Your task to perform on an android device: move a message to another label in the gmail app Image 0: 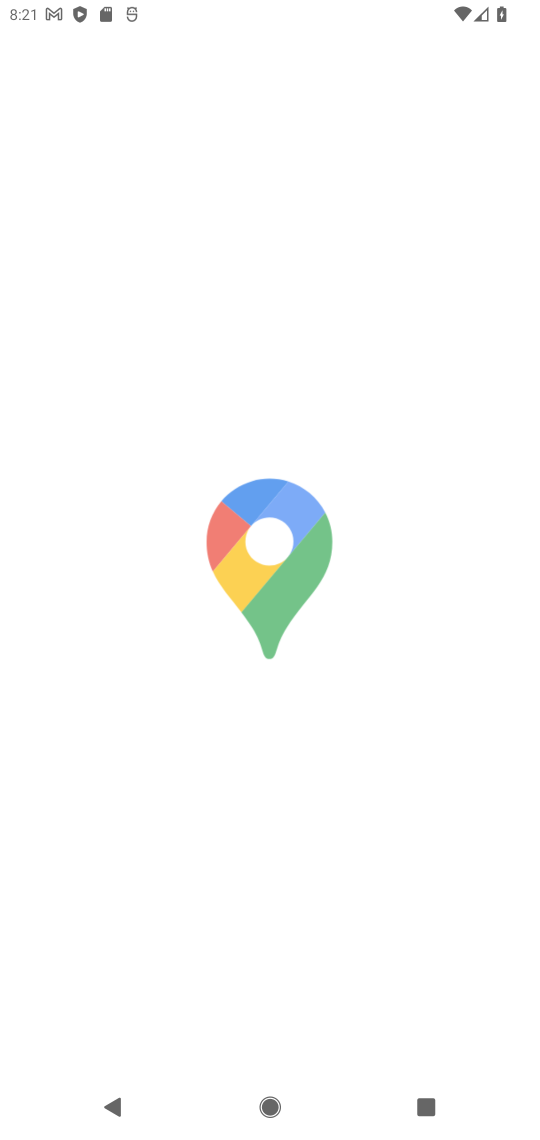
Step 0: drag from (406, 743) to (473, 9)
Your task to perform on an android device: move a message to another label in the gmail app Image 1: 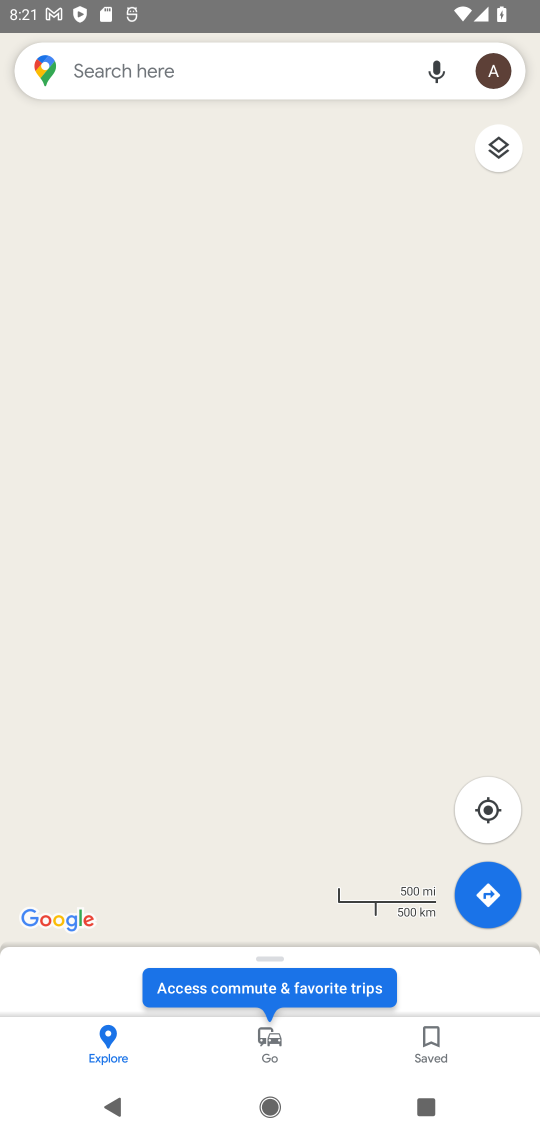
Step 1: press home button
Your task to perform on an android device: move a message to another label in the gmail app Image 2: 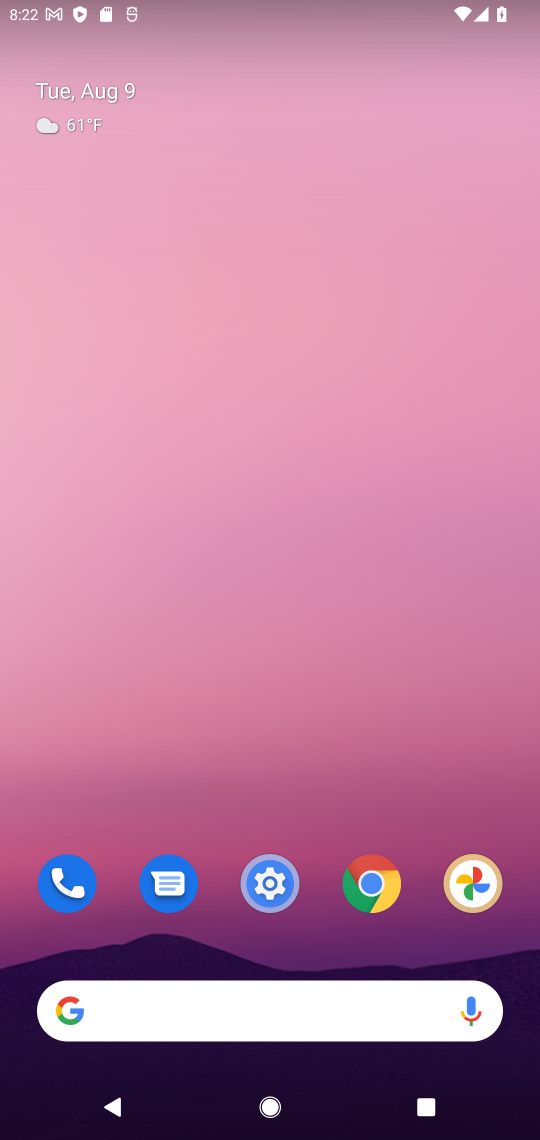
Step 2: drag from (409, 670) to (398, 60)
Your task to perform on an android device: move a message to another label in the gmail app Image 3: 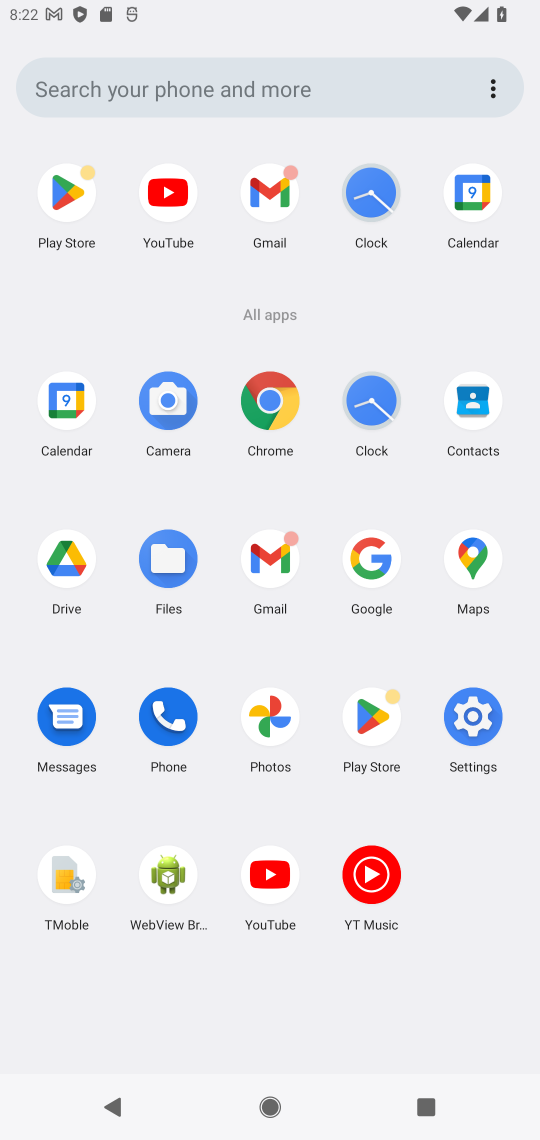
Step 3: click (258, 548)
Your task to perform on an android device: move a message to another label in the gmail app Image 4: 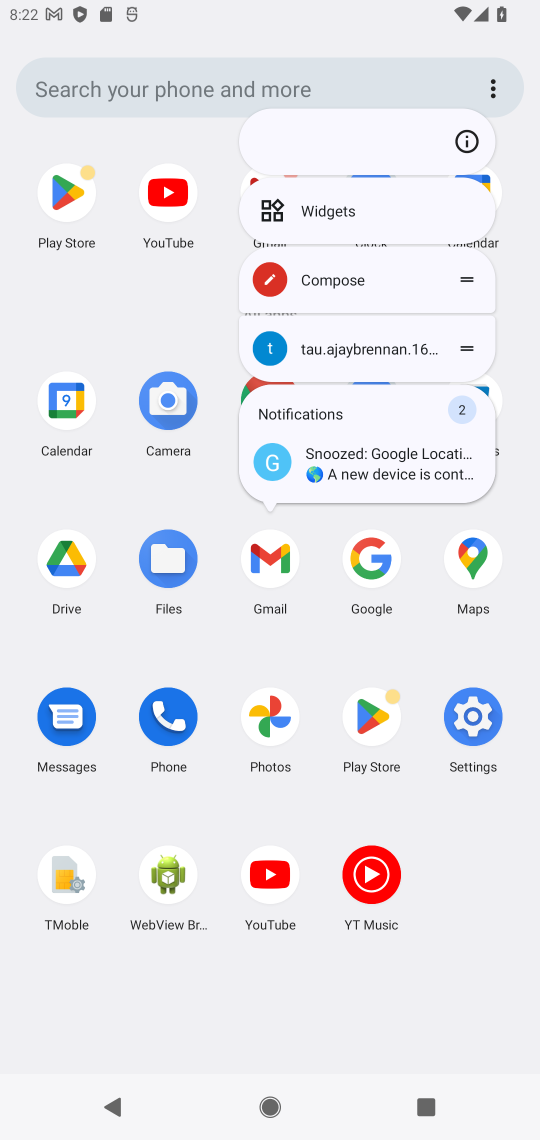
Step 4: click (265, 563)
Your task to perform on an android device: move a message to another label in the gmail app Image 5: 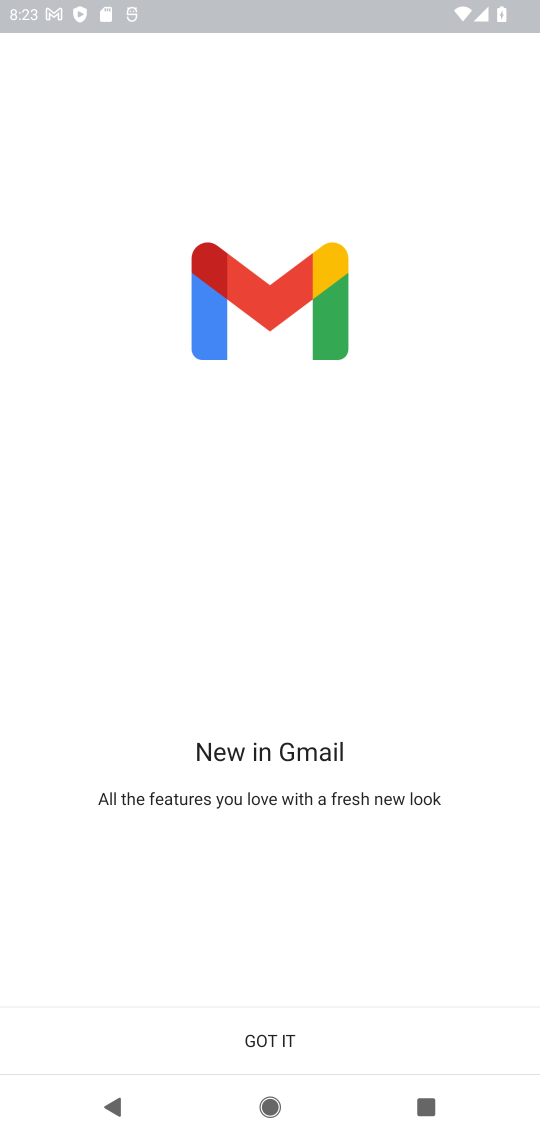
Step 5: click (248, 1028)
Your task to perform on an android device: move a message to another label in the gmail app Image 6: 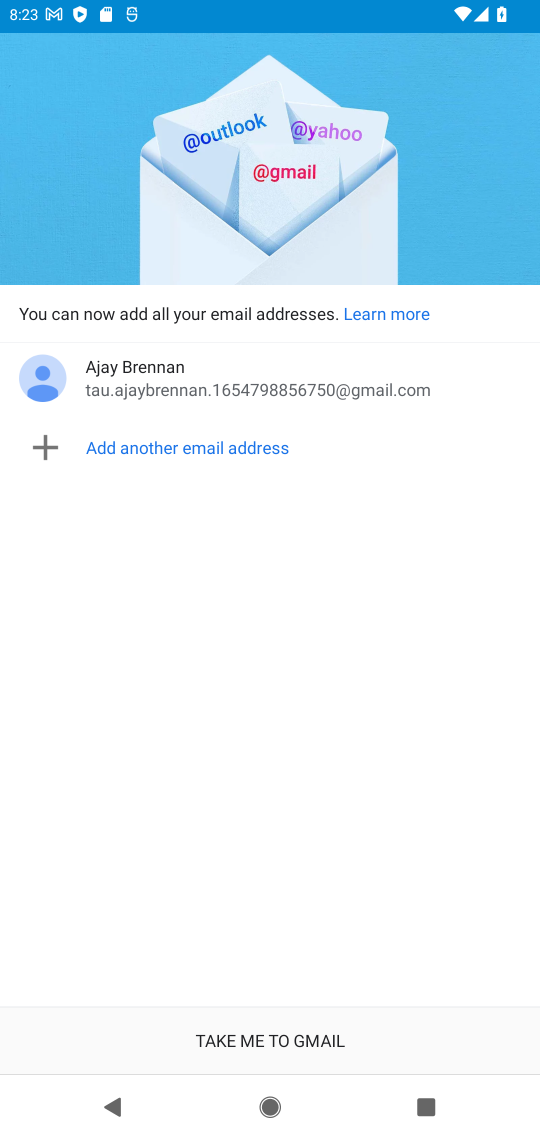
Step 6: click (293, 1050)
Your task to perform on an android device: move a message to another label in the gmail app Image 7: 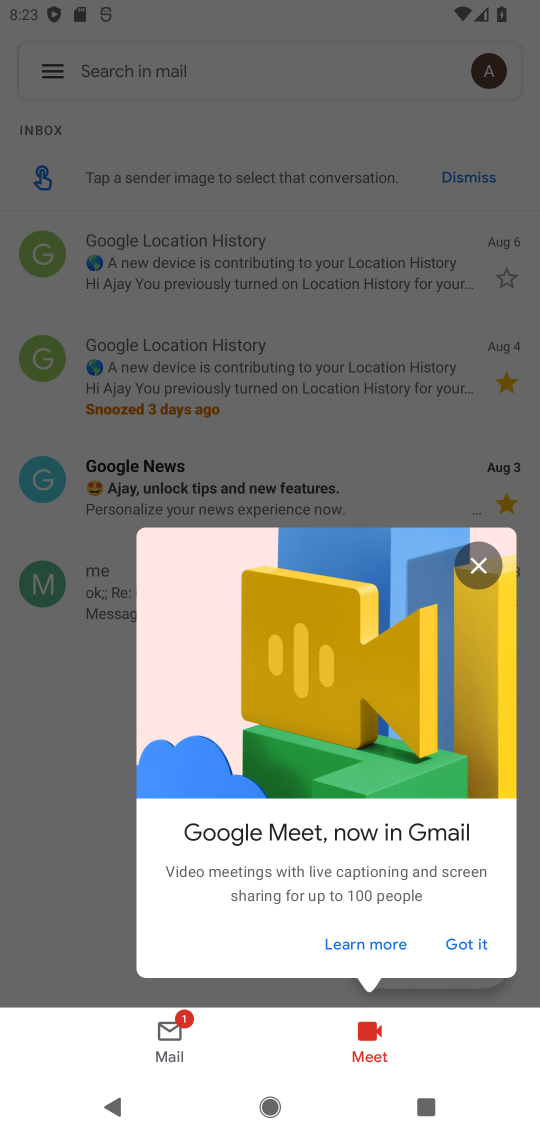
Step 7: click (286, 367)
Your task to perform on an android device: move a message to another label in the gmail app Image 8: 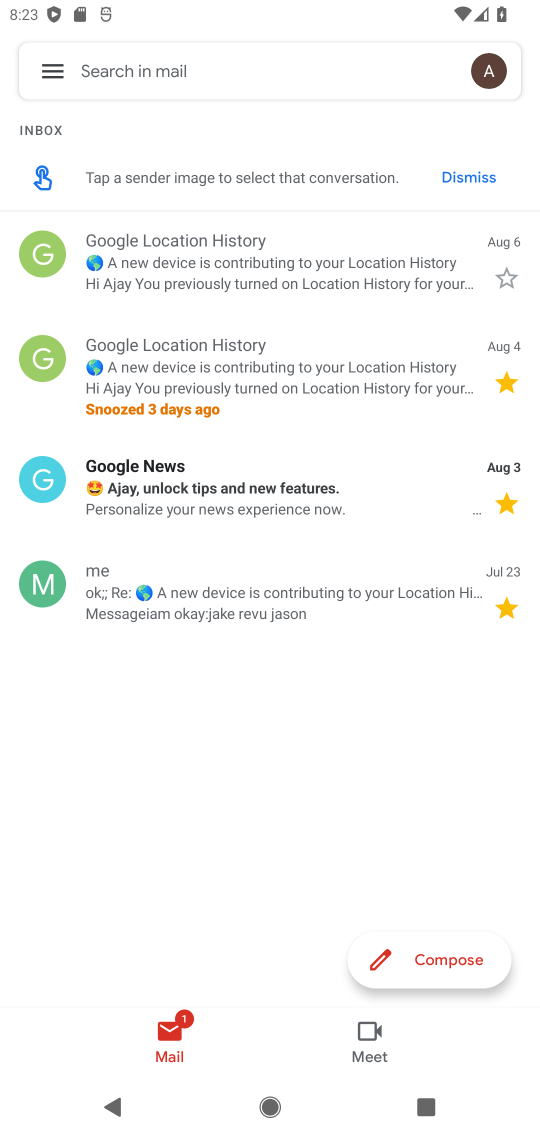
Step 8: click (347, 259)
Your task to perform on an android device: move a message to another label in the gmail app Image 9: 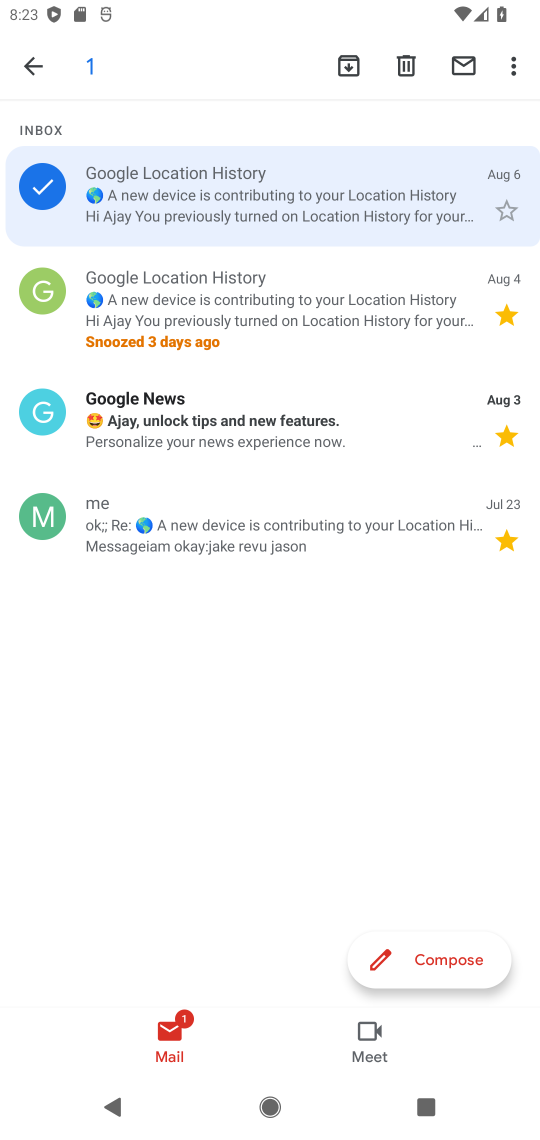
Step 9: click (515, 59)
Your task to perform on an android device: move a message to another label in the gmail app Image 10: 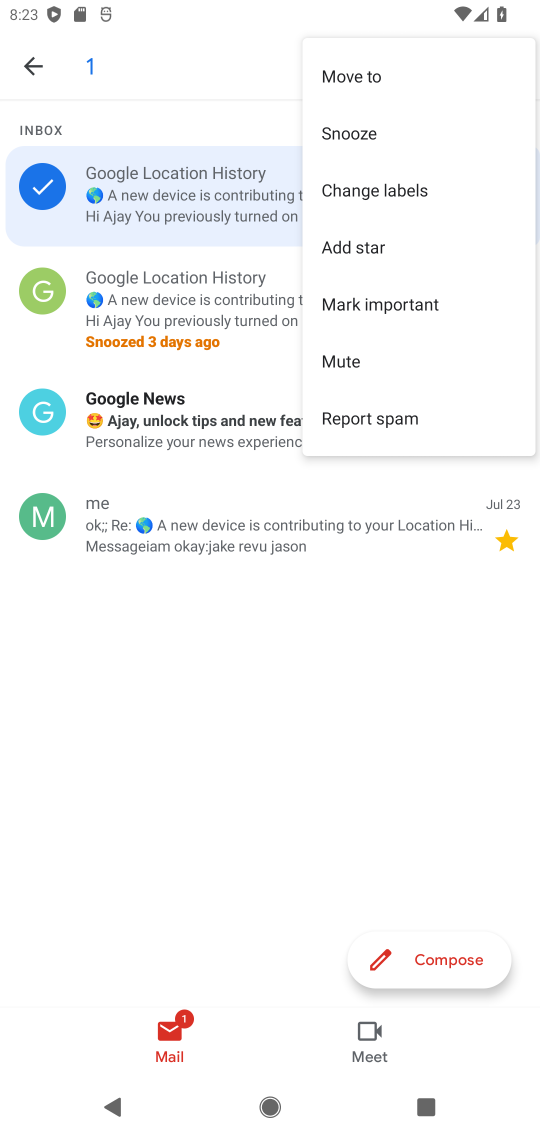
Step 10: click (376, 185)
Your task to perform on an android device: move a message to another label in the gmail app Image 11: 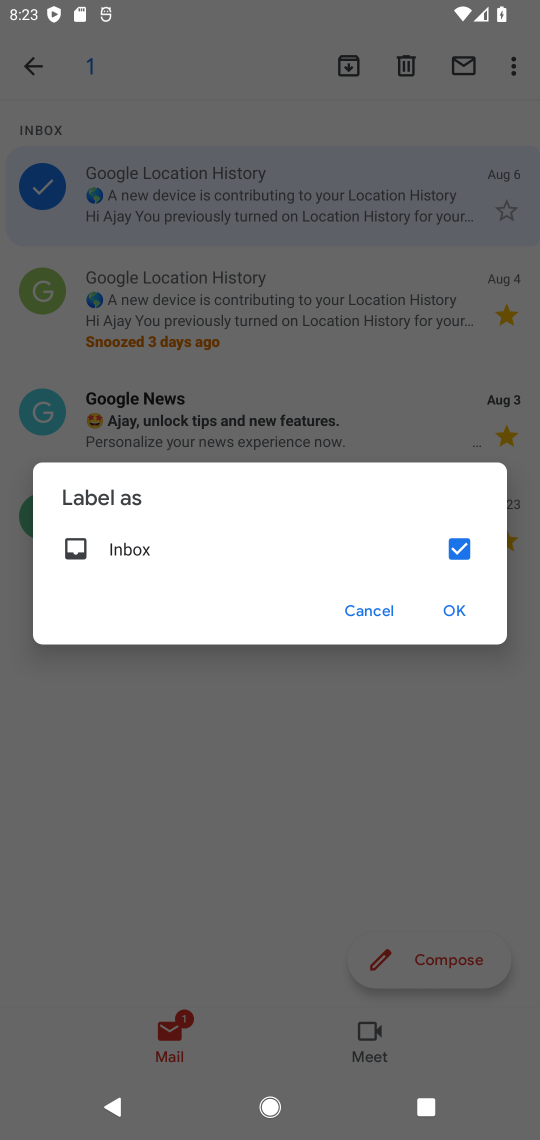
Step 11: click (452, 544)
Your task to perform on an android device: move a message to another label in the gmail app Image 12: 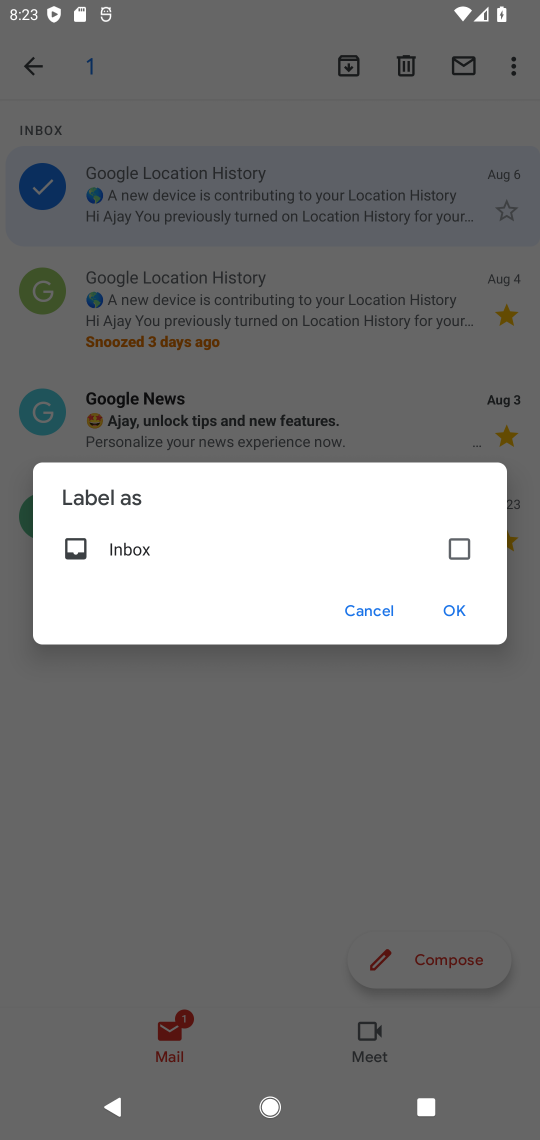
Step 12: click (466, 611)
Your task to perform on an android device: move a message to another label in the gmail app Image 13: 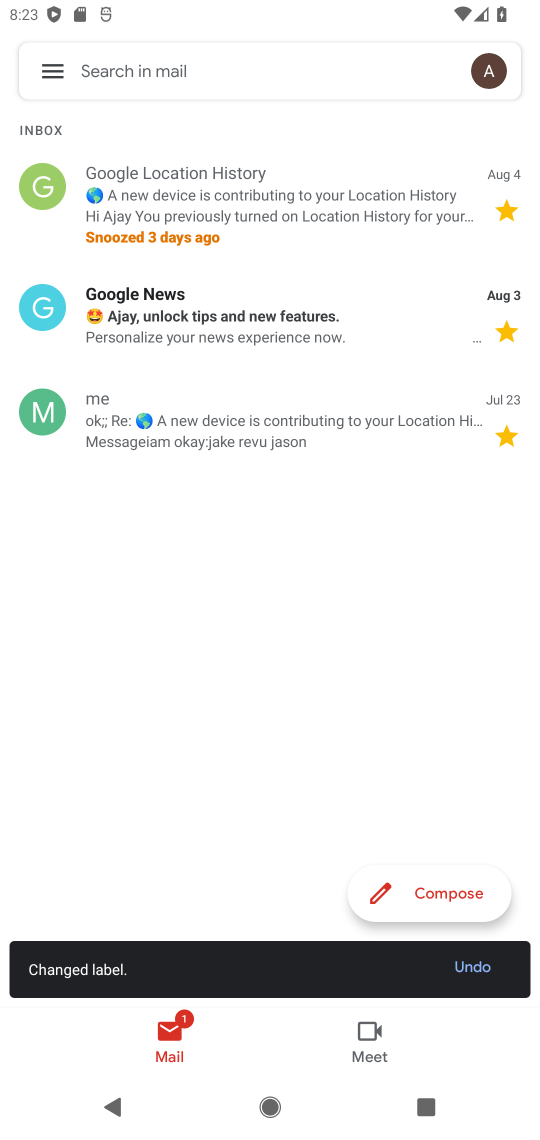
Step 13: task complete